Your task to perform on an android device: empty trash in google photos Image 0: 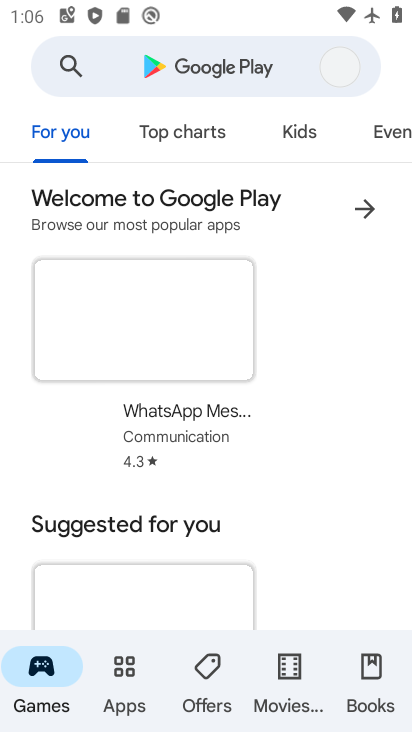
Step 0: press home button
Your task to perform on an android device: empty trash in google photos Image 1: 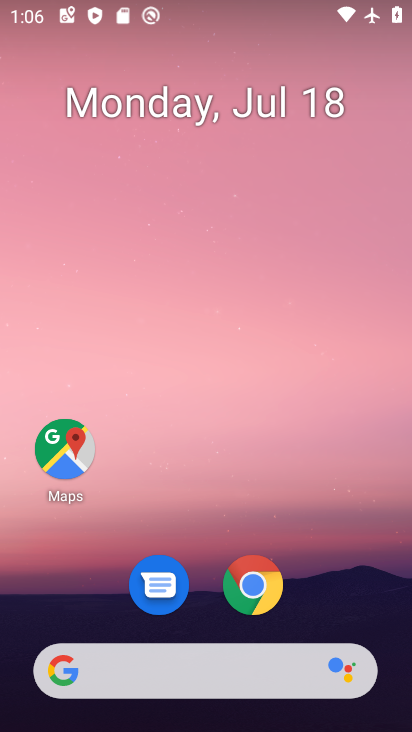
Step 1: drag from (175, 656) to (305, 164)
Your task to perform on an android device: empty trash in google photos Image 2: 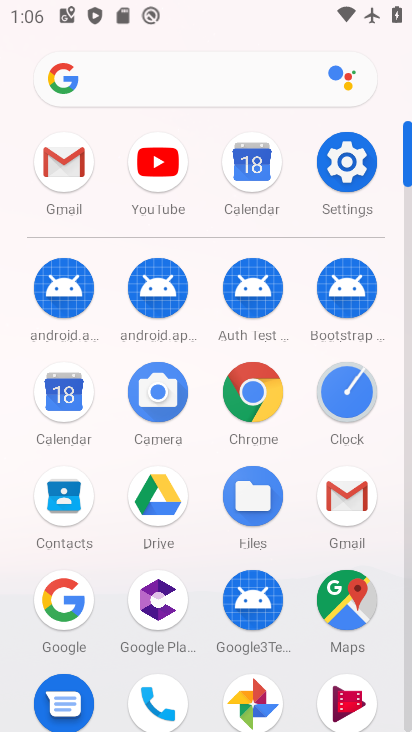
Step 2: drag from (102, 647) to (261, 118)
Your task to perform on an android device: empty trash in google photos Image 3: 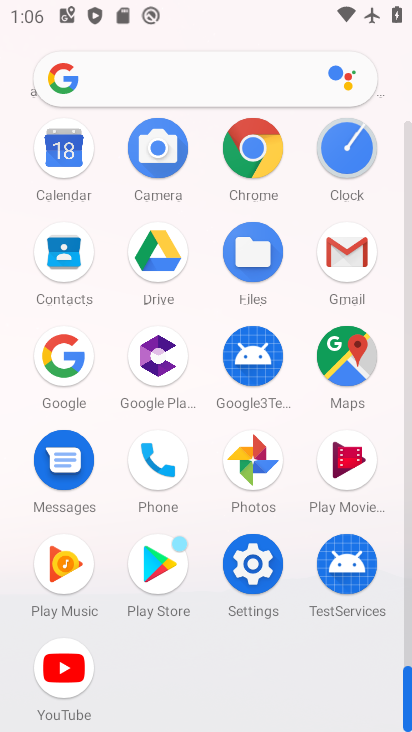
Step 3: click (253, 570)
Your task to perform on an android device: empty trash in google photos Image 4: 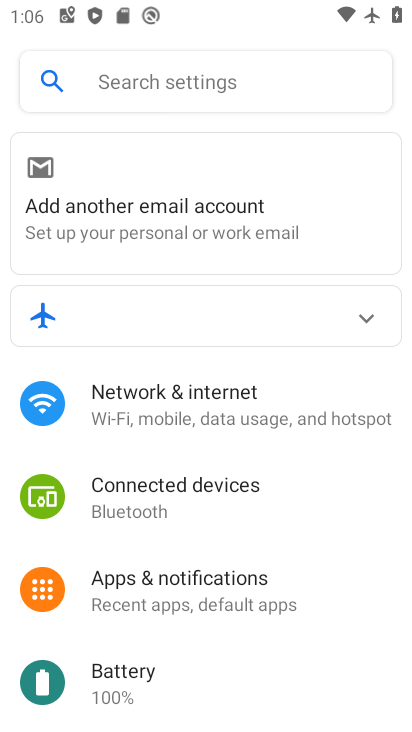
Step 4: press back button
Your task to perform on an android device: empty trash in google photos Image 5: 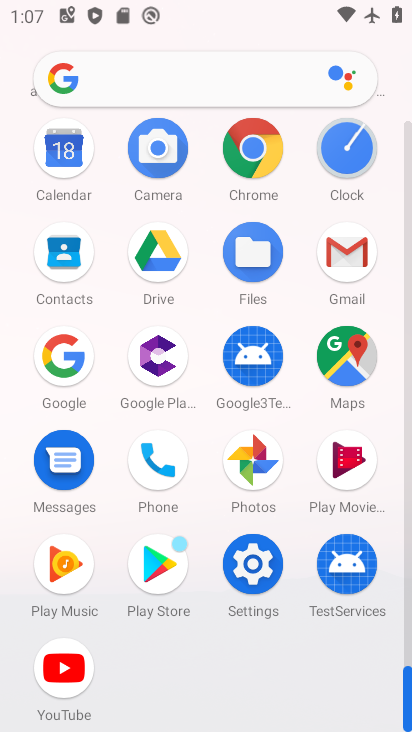
Step 5: click (258, 473)
Your task to perform on an android device: empty trash in google photos Image 6: 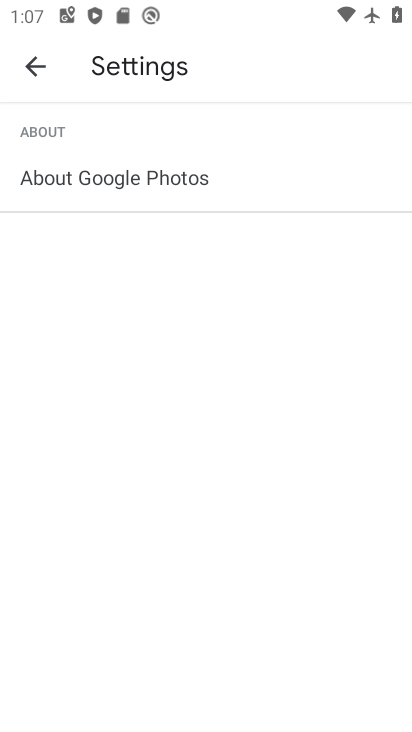
Step 6: click (38, 75)
Your task to perform on an android device: empty trash in google photos Image 7: 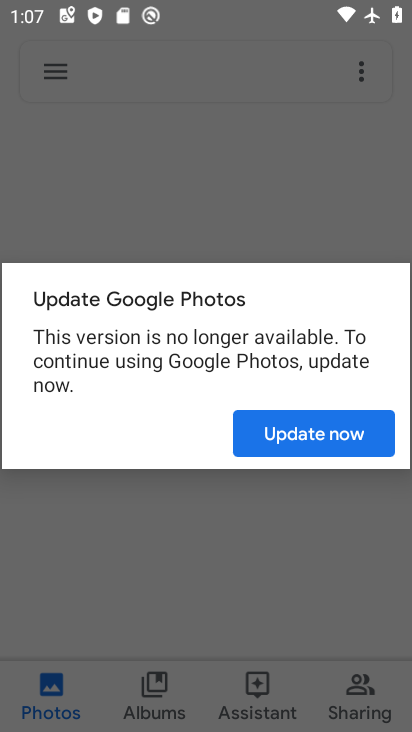
Step 7: click (272, 434)
Your task to perform on an android device: empty trash in google photos Image 8: 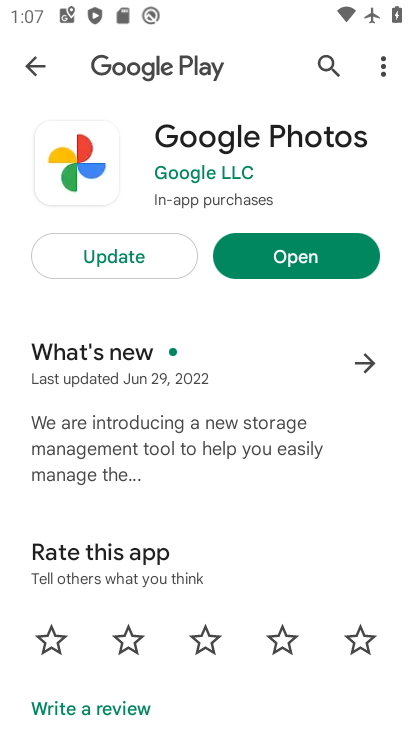
Step 8: click (298, 253)
Your task to perform on an android device: empty trash in google photos Image 9: 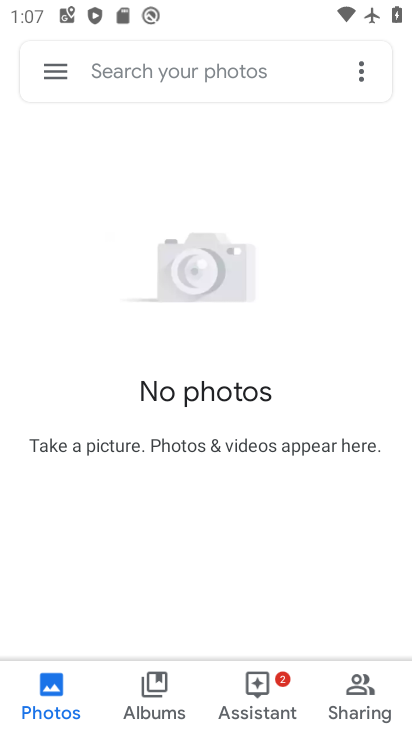
Step 9: click (56, 69)
Your task to perform on an android device: empty trash in google photos Image 10: 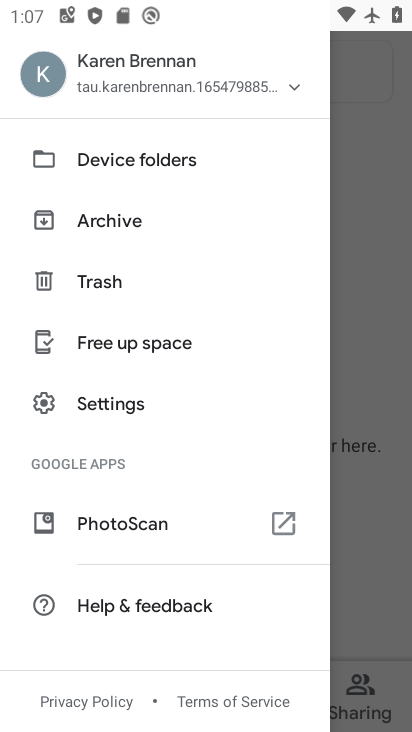
Step 10: click (90, 279)
Your task to perform on an android device: empty trash in google photos Image 11: 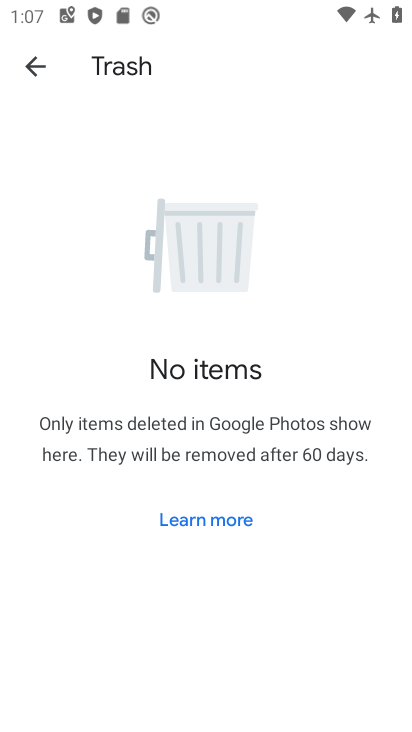
Step 11: task complete